Your task to perform on an android device: see tabs open on other devices in the chrome app Image 0: 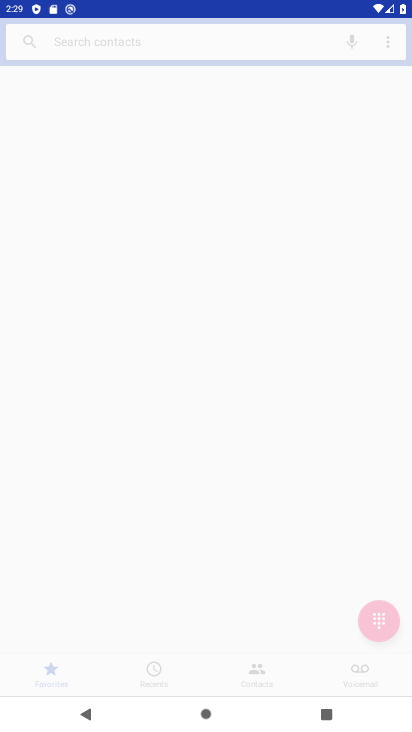
Step 0: drag from (179, 622) to (179, 168)
Your task to perform on an android device: see tabs open on other devices in the chrome app Image 1: 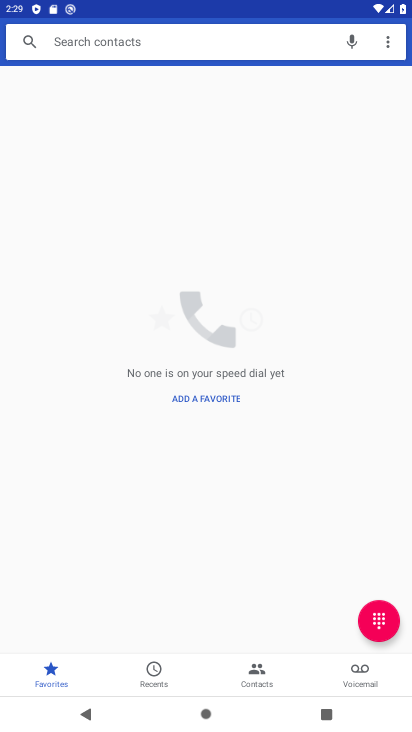
Step 1: press home button
Your task to perform on an android device: see tabs open on other devices in the chrome app Image 2: 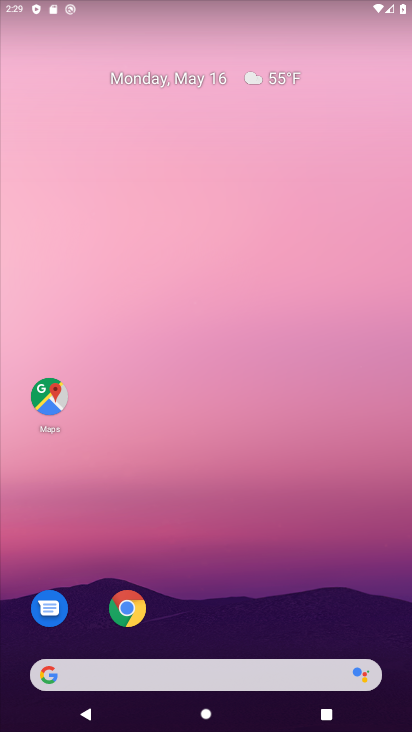
Step 2: drag from (203, 617) to (203, 120)
Your task to perform on an android device: see tabs open on other devices in the chrome app Image 3: 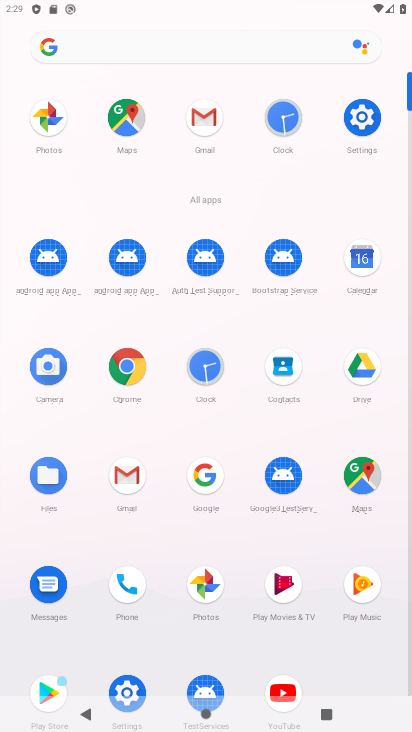
Step 3: click (132, 377)
Your task to perform on an android device: see tabs open on other devices in the chrome app Image 4: 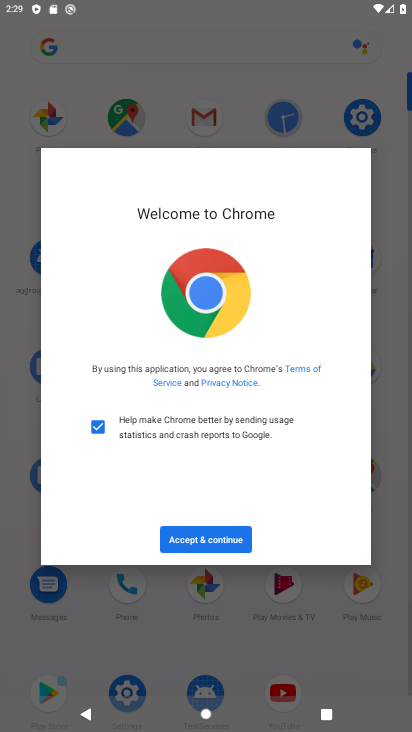
Step 4: click (219, 532)
Your task to perform on an android device: see tabs open on other devices in the chrome app Image 5: 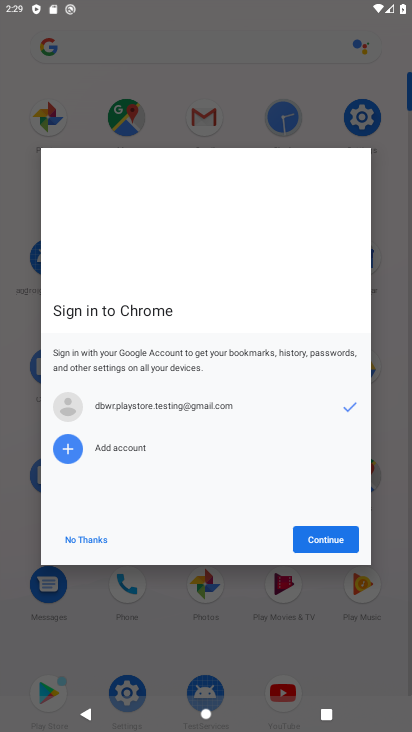
Step 5: click (302, 542)
Your task to perform on an android device: see tabs open on other devices in the chrome app Image 6: 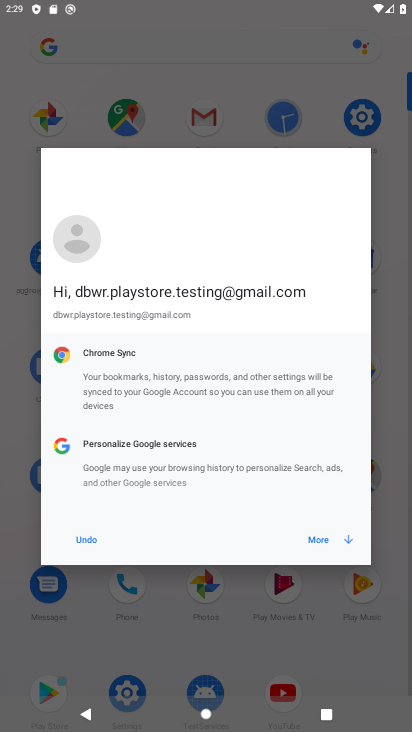
Step 6: click (303, 538)
Your task to perform on an android device: see tabs open on other devices in the chrome app Image 7: 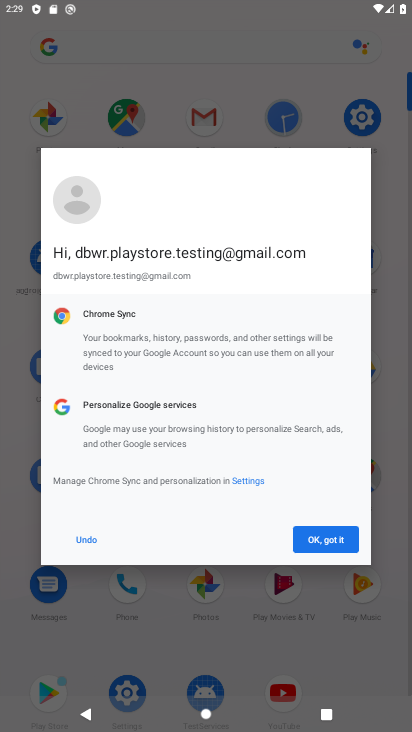
Step 7: click (306, 535)
Your task to perform on an android device: see tabs open on other devices in the chrome app Image 8: 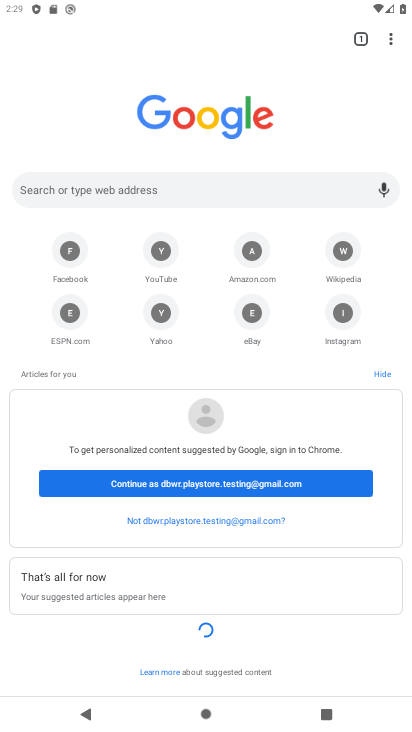
Step 8: click (383, 43)
Your task to perform on an android device: see tabs open on other devices in the chrome app Image 9: 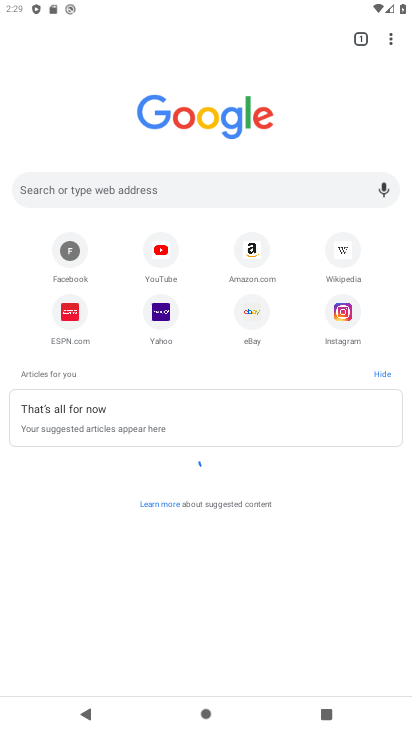
Step 9: click (389, 41)
Your task to perform on an android device: see tabs open on other devices in the chrome app Image 10: 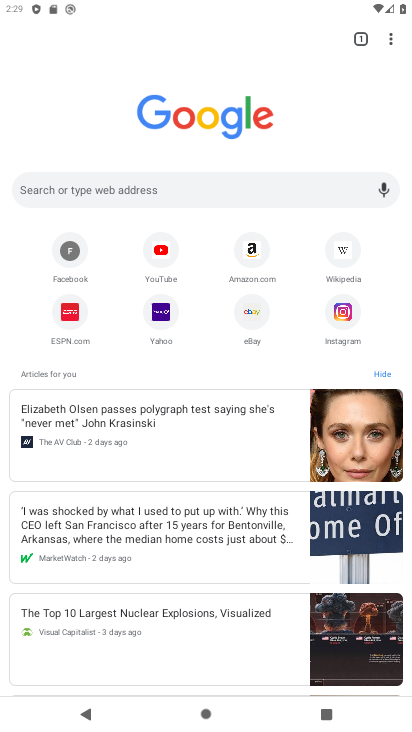
Step 10: drag from (389, 43) to (263, 190)
Your task to perform on an android device: see tabs open on other devices in the chrome app Image 11: 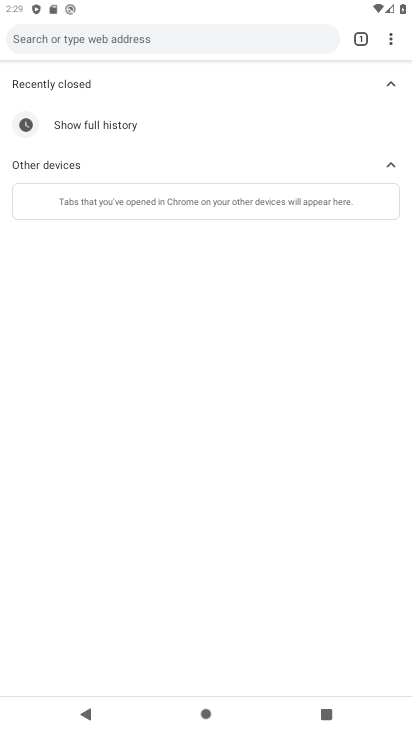
Step 11: drag from (137, 125) to (186, 312)
Your task to perform on an android device: see tabs open on other devices in the chrome app Image 12: 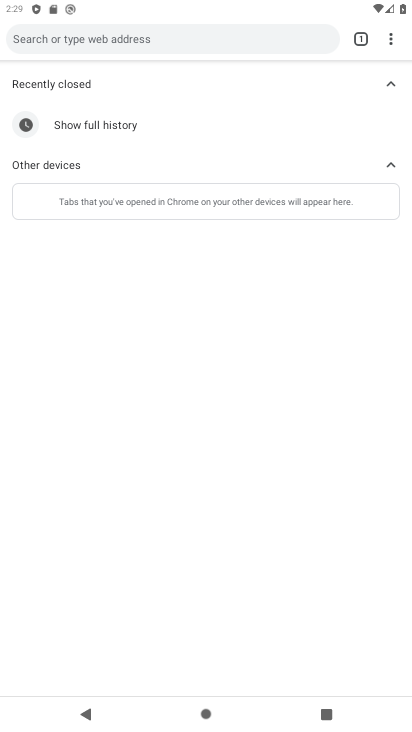
Step 12: click (184, 312)
Your task to perform on an android device: see tabs open on other devices in the chrome app Image 13: 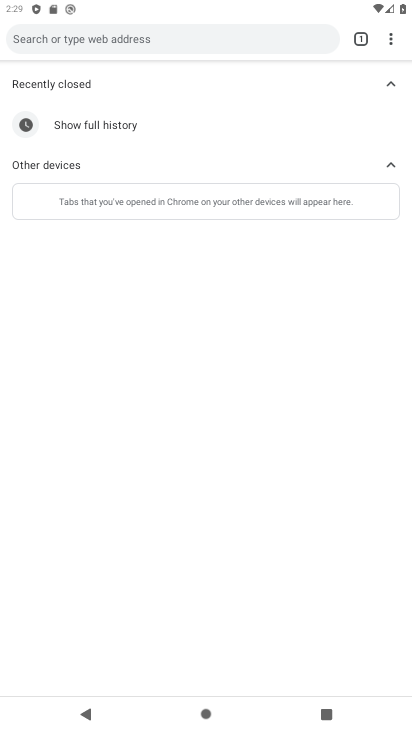
Step 13: task complete